Your task to perform on an android device: manage bookmarks in the chrome app Image 0: 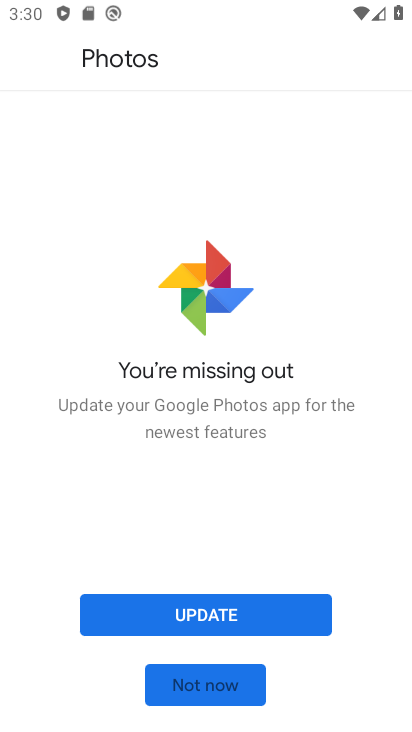
Step 0: press home button
Your task to perform on an android device: manage bookmarks in the chrome app Image 1: 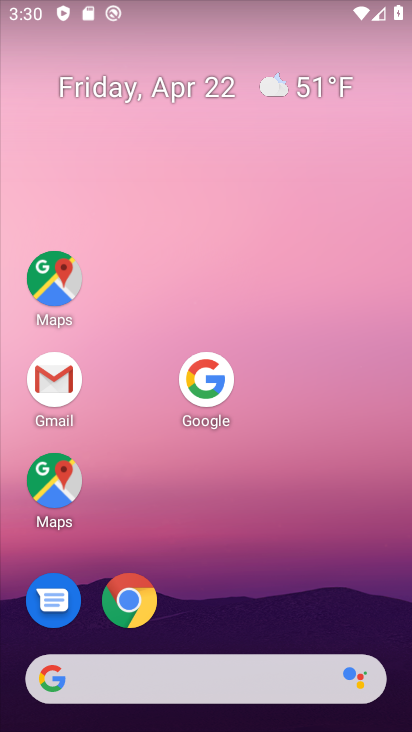
Step 1: drag from (308, 670) to (148, 156)
Your task to perform on an android device: manage bookmarks in the chrome app Image 2: 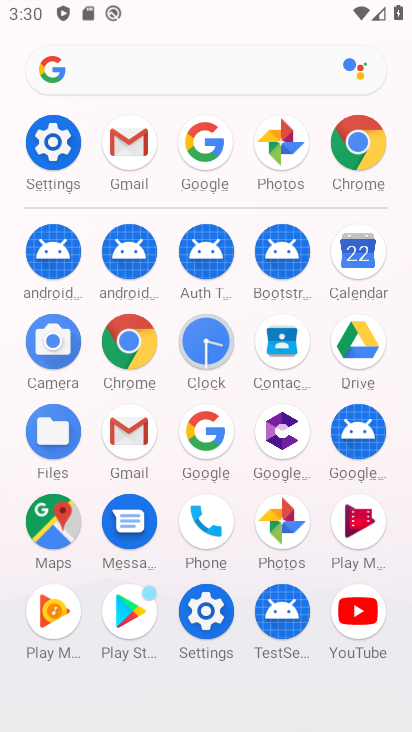
Step 2: click (354, 144)
Your task to perform on an android device: manage bookmarks in the chrome app Image 3: 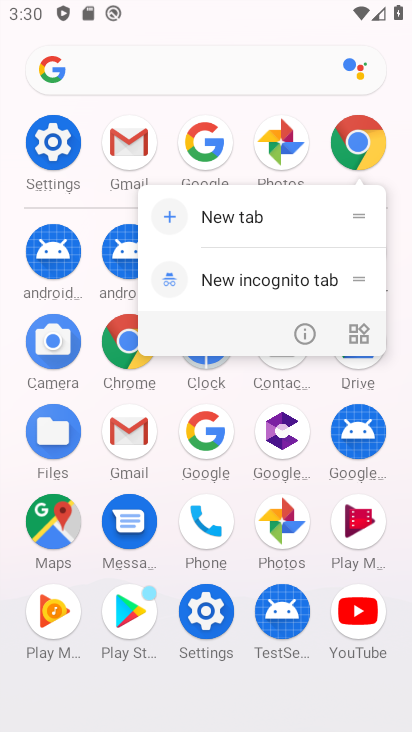
Step 3: click (353, 139)
Your task to perform on an android device: manage bookmarks in the chrome app Image 4: 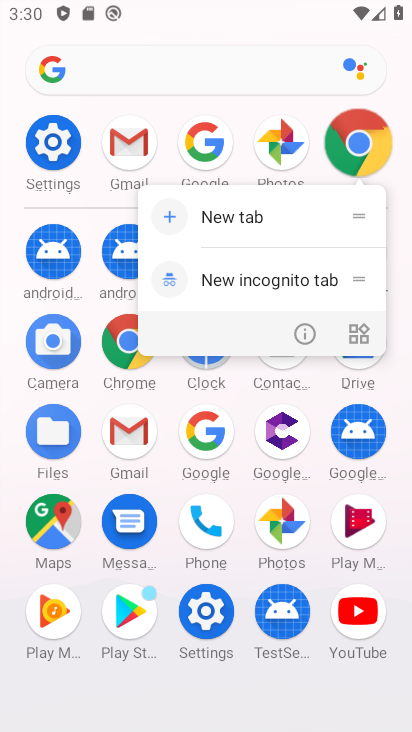
Step 4: click (353, 139)
Your task to perform on an android device: manage bookmarks in the chrome app Image 5: 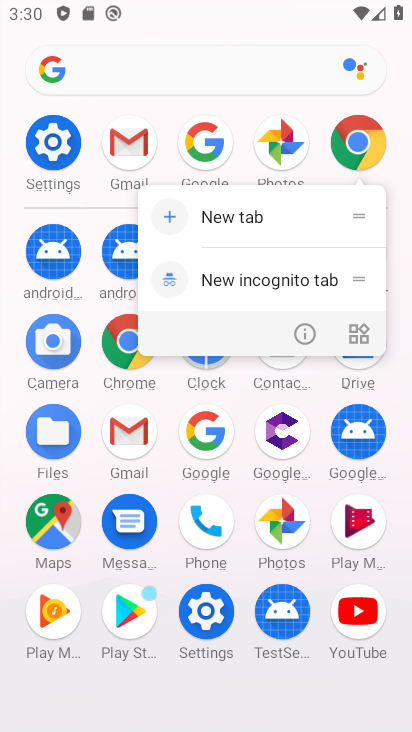
Step 5: click (353, 139)
Your task to perform on an android device: manage bookmarks in the chrome app Image 6: 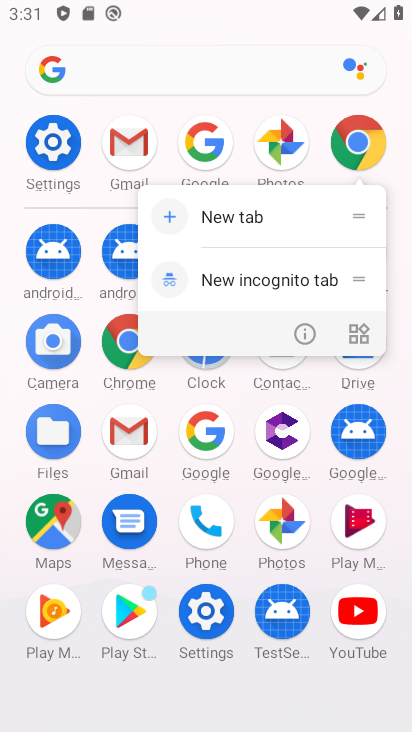
Step 6: click (240, 213)
Your task to perform on an android device: manage bookmarks in the chrome app Image 7: 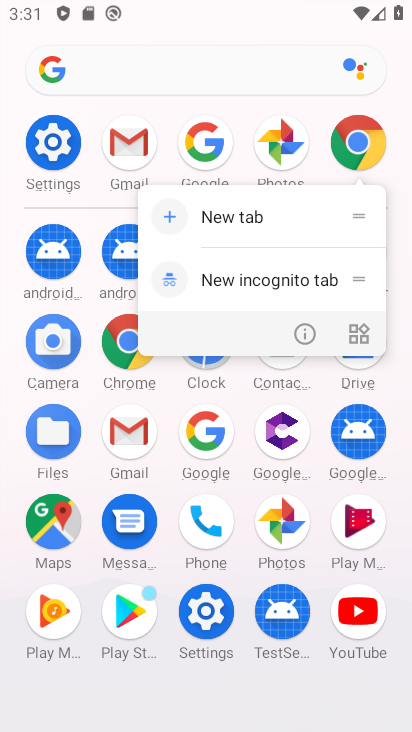
Step 7: click (240, 213)
Your task to perform on an android device: manage bookmarks in the chrome app Image 8: 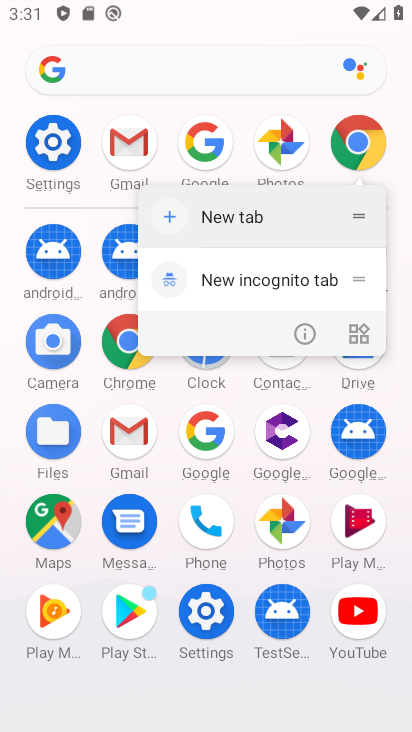
Step 8: click (240, 213)
Your task to perform on an android device: manage bookmarks in the chrome app Image 9: 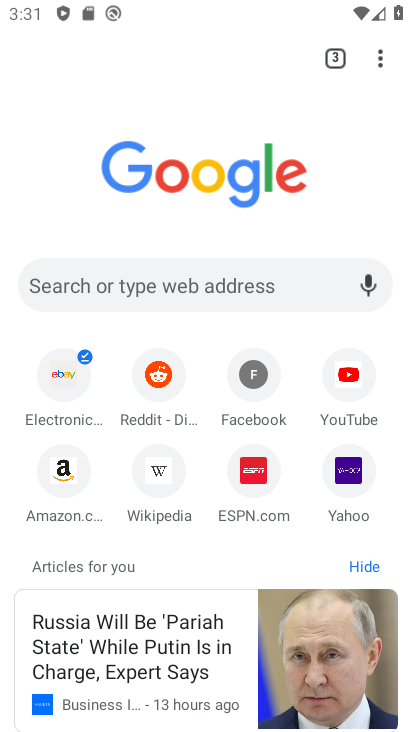
Step 9: click (240, 213)
Your task to perform on an android device: manage bookmarks in the chrome app Image 10: 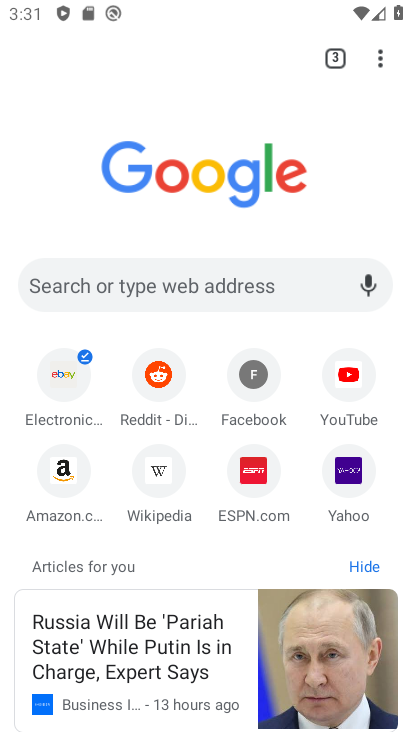
Step 10: drag from (380, 54) to (192, 221)
Your task to perform on an android device: manage bookmarks in the chrome app Image 11: 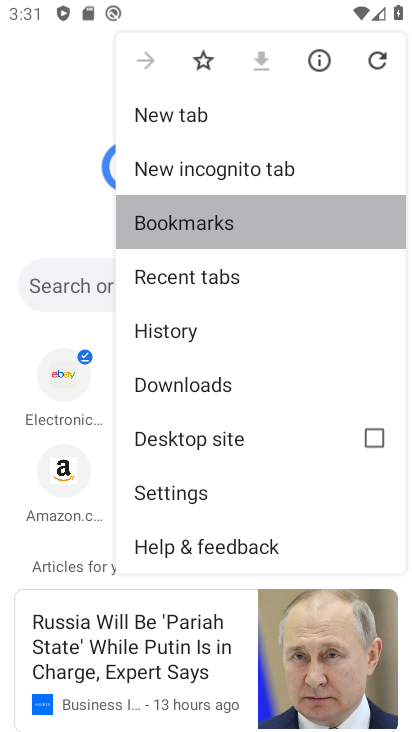
Step 11: click (181, 213)
Your task to perform on an android device: manage bookmarks in the chrome app Image 12: 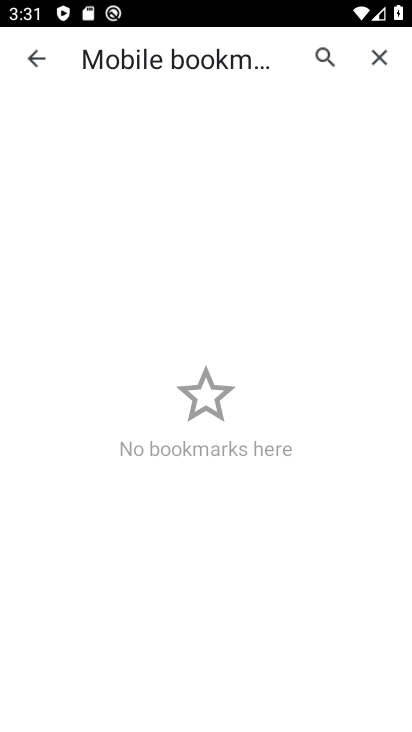
Step 12: click (181, 213)
Your task to perform on an android device: manage bookmarks in the chrome app Image 13: 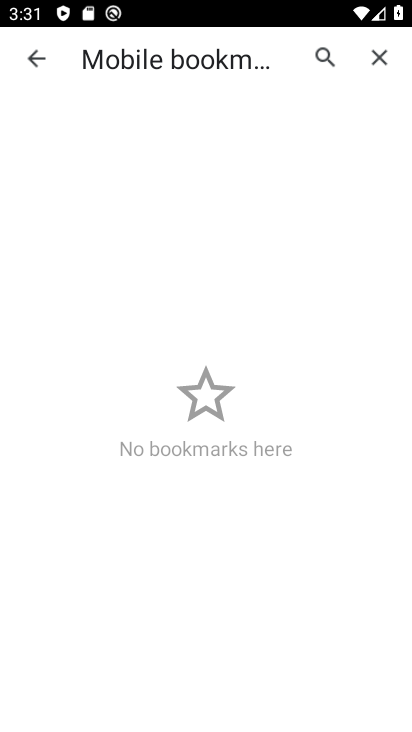
Step 13: task complete